Your task to perform on an android device: Show me the alarms in the clock app Image 0: 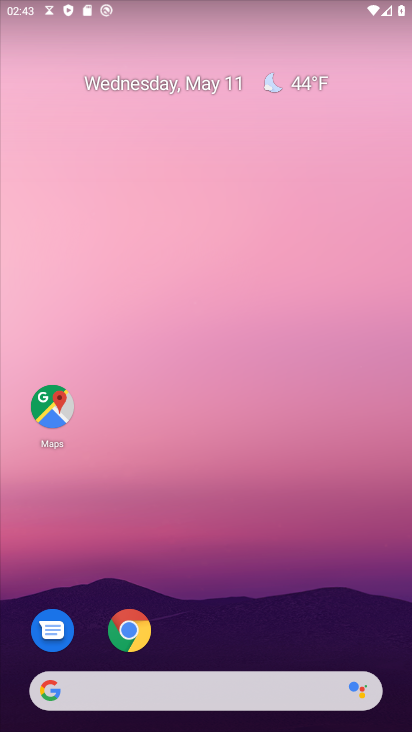
Step 0: drag from (188, 643) to (167, 128)
Your task to perform on an android device: Show me the alarms in the clock app Image 1: 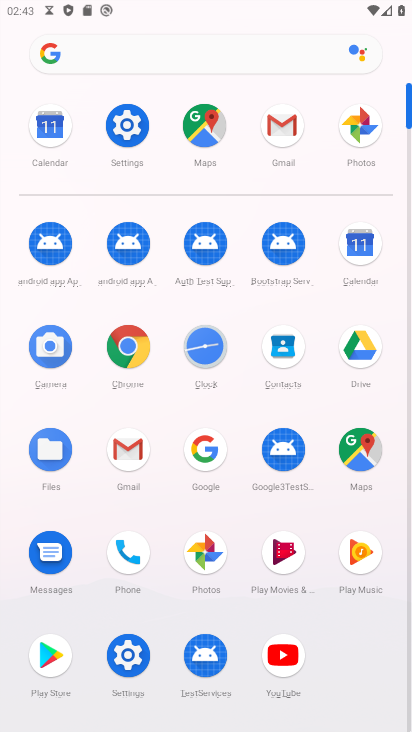
Step 1: click (208, 344)
Your task to perform on an android device: Show me the alarms in the clock app Image 2: 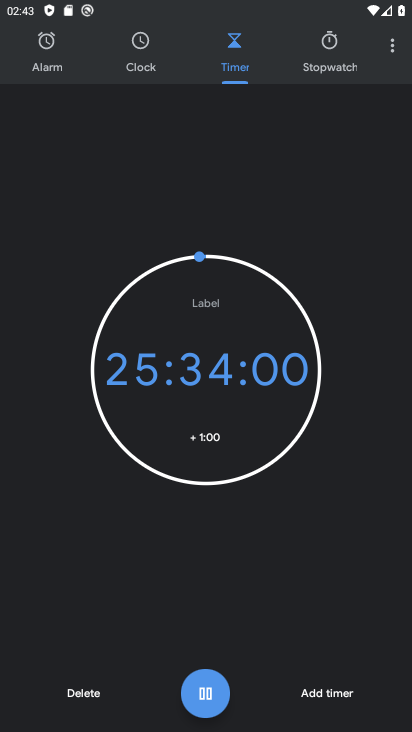
Step 2: click (41, 46)
Your task to perform on an android device: Show me the alarms in the clock app Image 3: 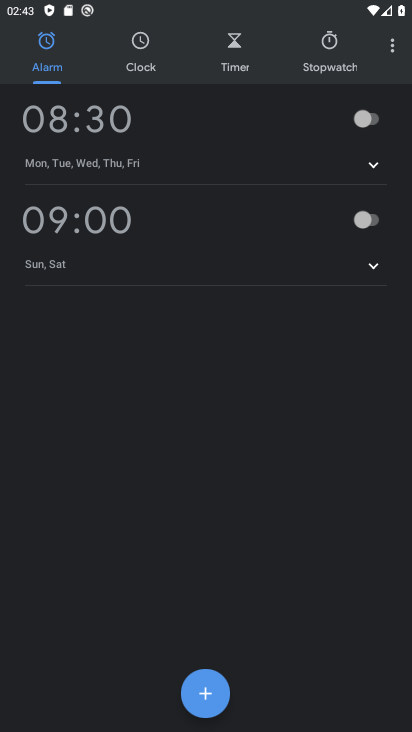
Step 3: task complete